Your task to perform on an android device: Go to accessibility settings Image 0: 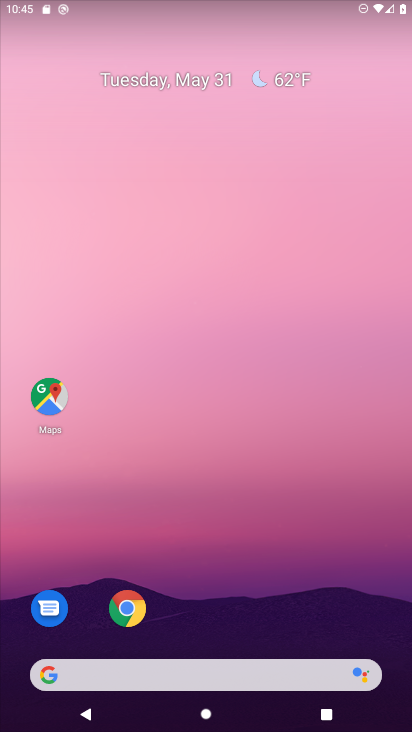
Step 0: drag from (277, 568) to (278, 268)
Your task to perform on an android device: Go to accessibility settings Image 1: 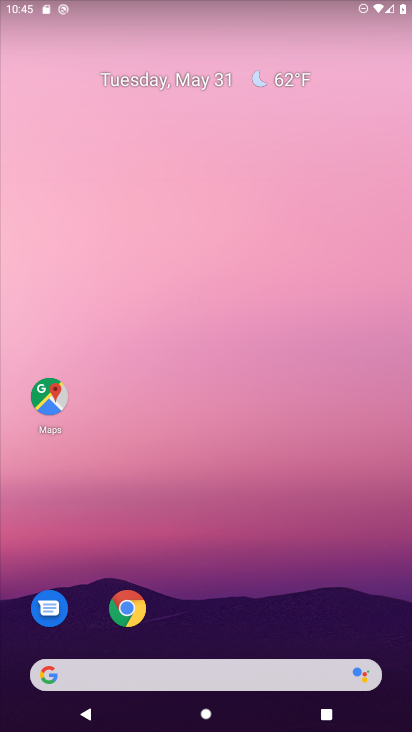
Step 1: drag from (299, 578) to (269, 183)
Your task to perform on an android device: Go to accessibility settings Image 2: 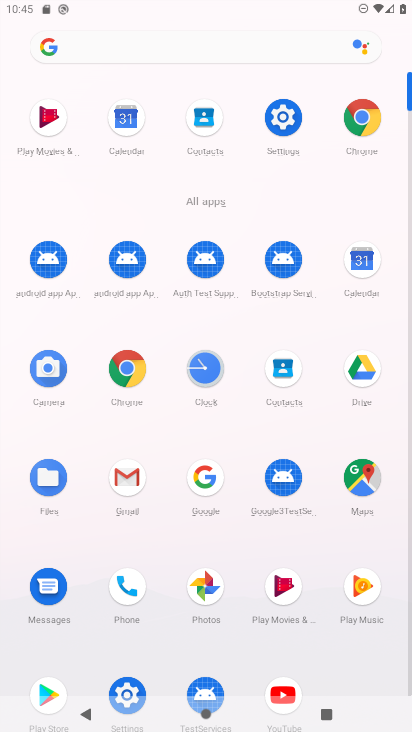
Step 2: click (138, 684)
Your task to perform on an android device: Go to accessibility settings Image 3: 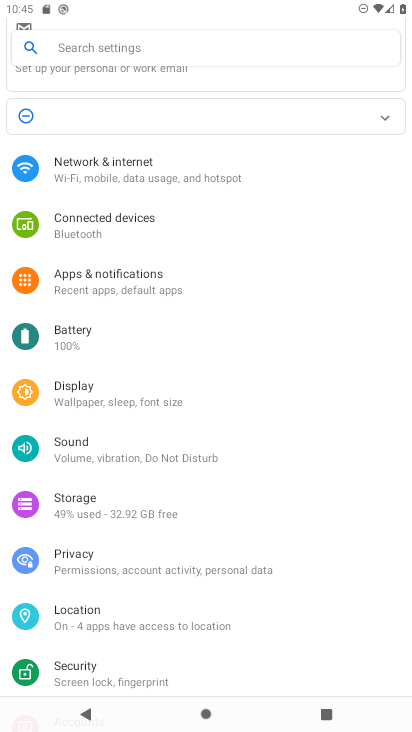
Step 3: drag from (133, 684) to (187, 447)
Your task to perform on an android device: Go to accessibility settings Image 4: 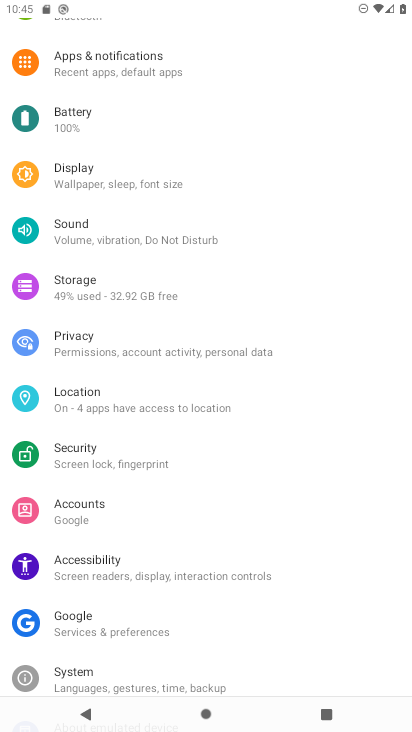
Step 4: click (131, 548)
Your task to perform on an android device: Go to accessibility settings Image 5: 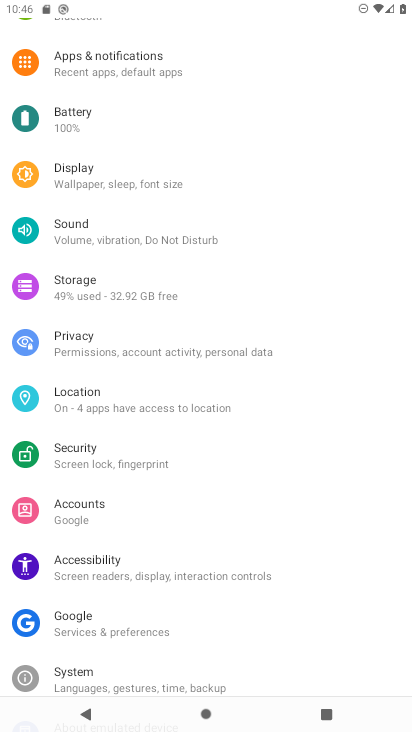
Step 5: click (130, 558)
Your task to perform on an android device: Go to accessibility settings Image 6: 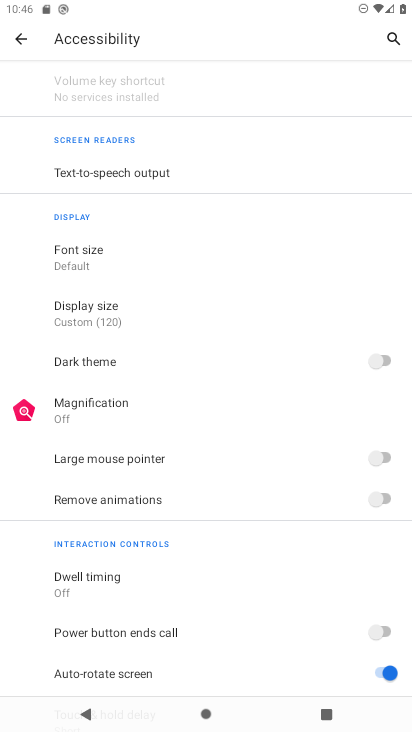
Step 6: task complete